Your task to perform on an android device: Do I have any events tomorrow? Image 0: 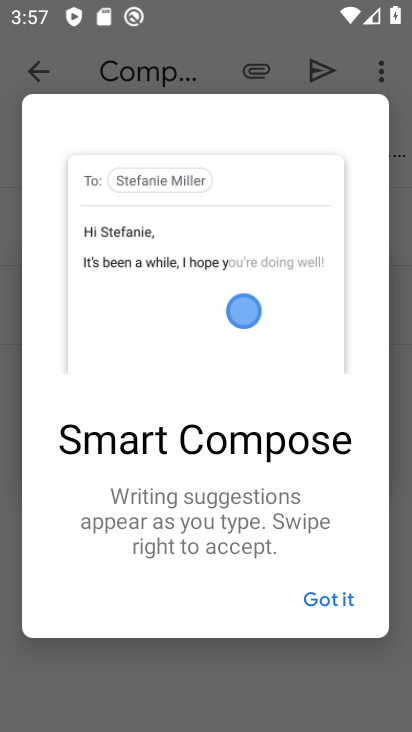
Step 0: press home button
Your task to perform on an android device: Do I have any events tomorrow? Image 1: 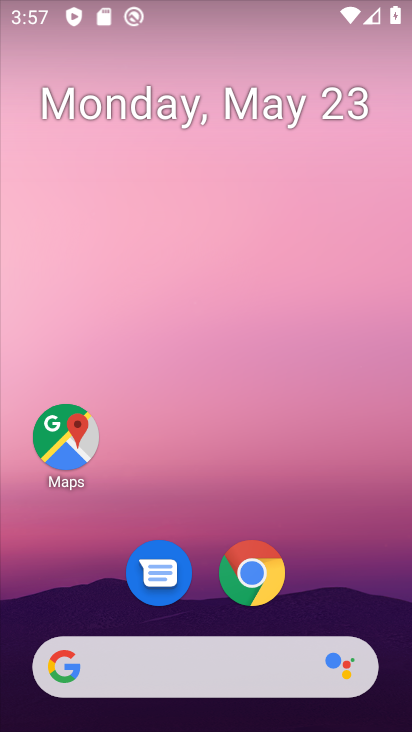
Step 1: drag from (198, 720) to (114, 84)
Your task to perform on an android device: Do I have any events tomorrow? Image 2: 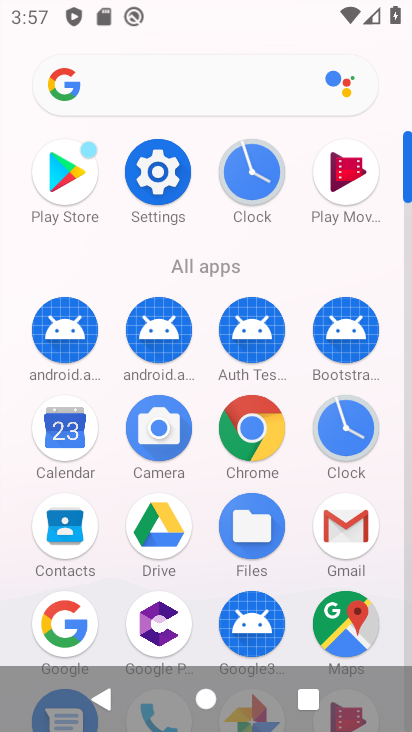
Step 2: click (61, 439)
Your task to perform on an android device: Do I have any events tomorrow? Image 3: 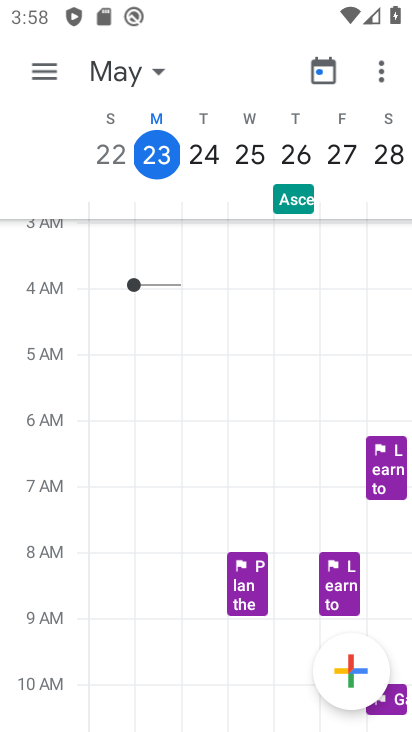
Step 3: click (201, 150)
Your task to perform on an android device: Do I have any events tomorrow? Image 4: 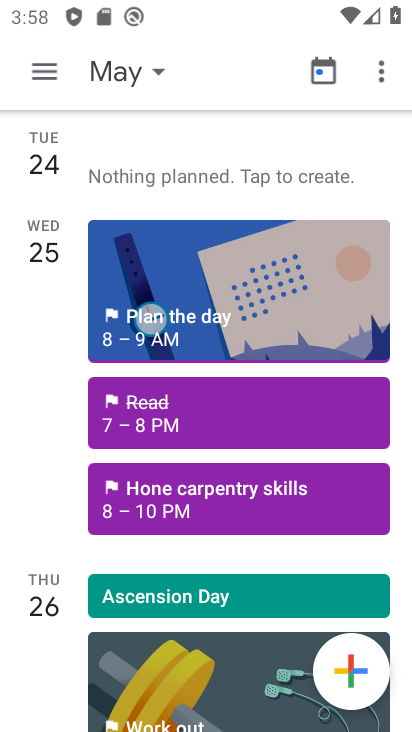
Step 4: task complete